Your task to perform on an android device: Go to Yahoo.com Image 0: 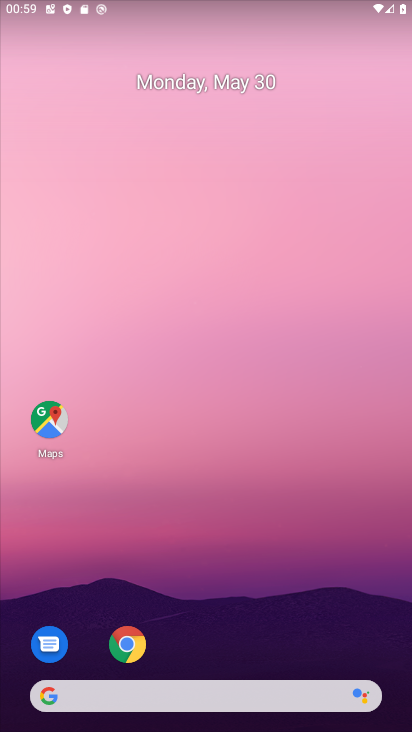
Step 0: drag from (335, 573) to (335, 201)
Your task to perform on an android device: Go to Yahoo.com Image 1: 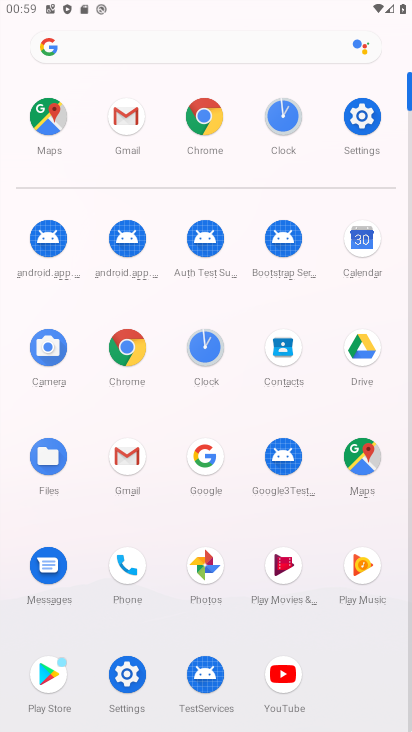
Step 1: click (206, 132)
Your task to perform on an android device: Go to Yahoo.com Image 2: 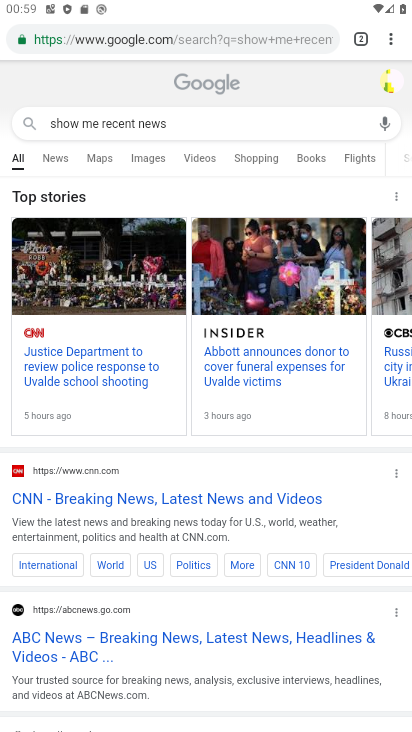
Step 2: click (205, 124)
Your task to perform on an android device: Go to Yahoo.com Image 3: 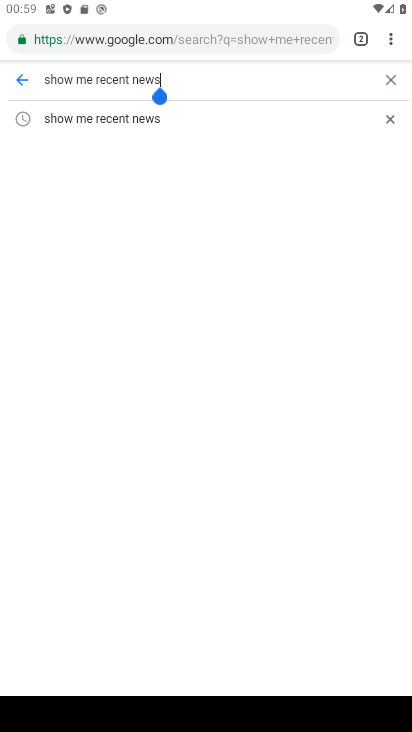
Step 3: click (206, 39)
Your task to perform on an android device: Go to Yahoo.com Image 4: 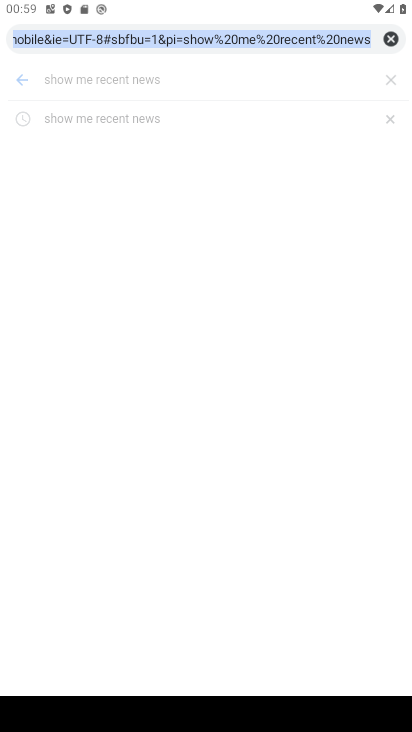
Step 4: click (398, 40)
Your task to perform on an android device: Go to Yahoo.com Image 5: 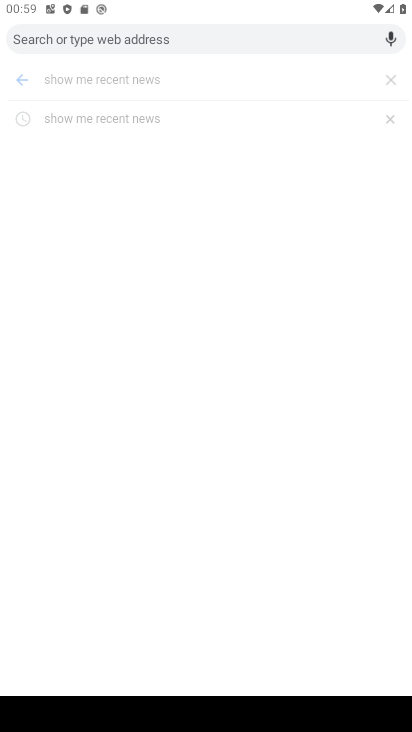
Step 5: type "yahoo.com"
Your task to perform on an android device: Go to Yahoo.com Image 6: 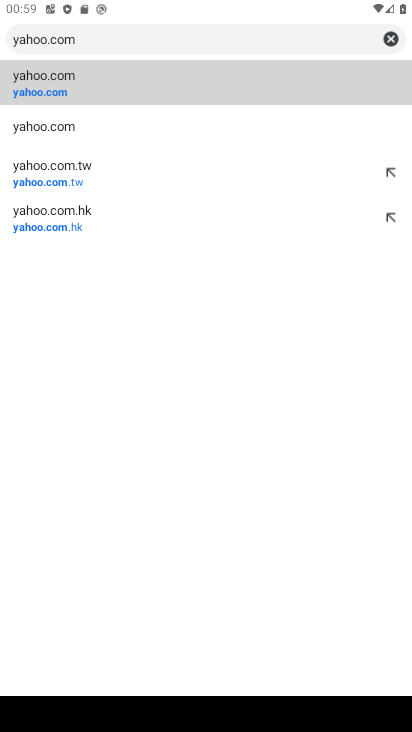
Step 6: click (198, 87)
Your task to perform on an android device: Go to Yahoo.com Image 7: 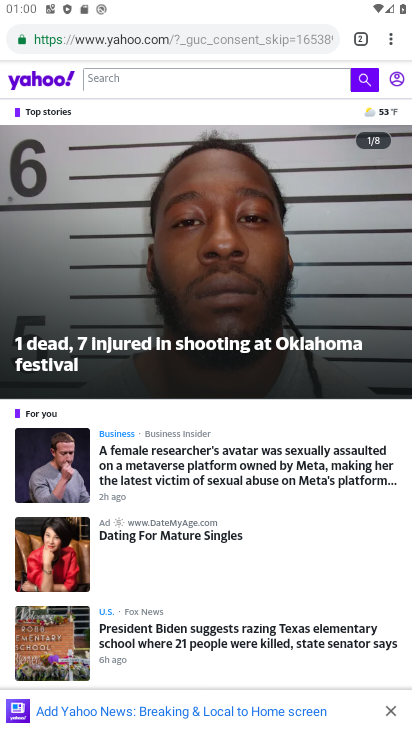
Step 7: task complete